Your task to perform on an android device: When is my next appointment? Image 0: 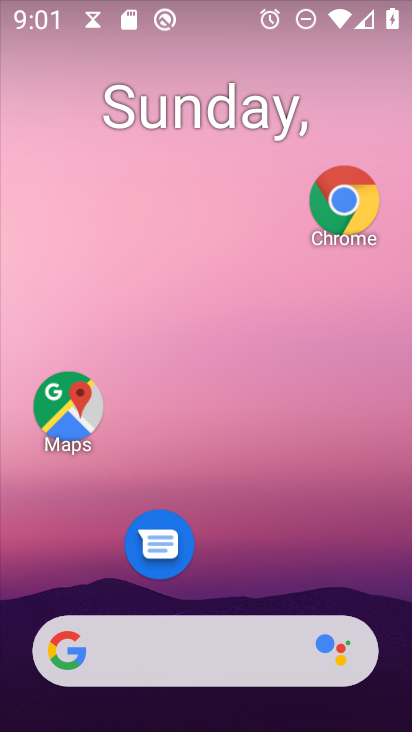
Step 0: drag from (268, 584) to (326, 8)
Your task to perform on an android device: When is my next appointment? Image 1: 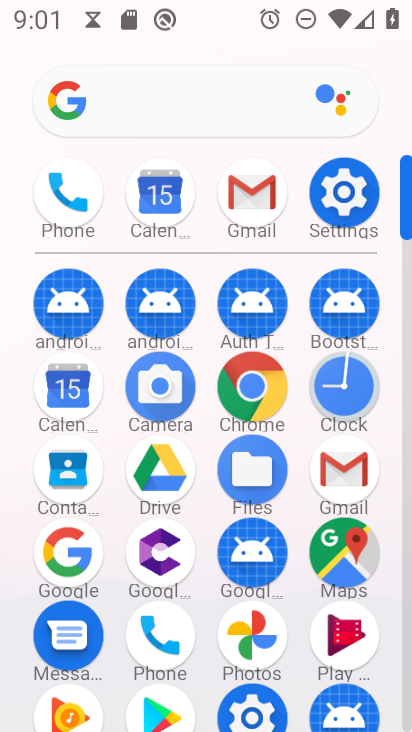
Step 1: click (142, 200)
Your task to perform on an android device: When is my next appointment? Image 2: 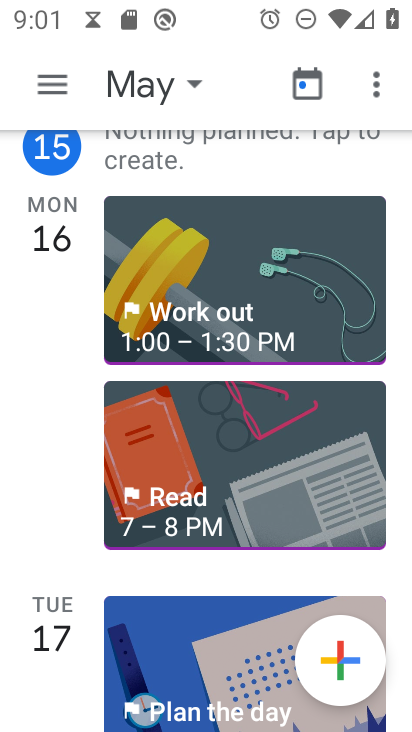
Step 2: task complete